Your task to perform on an android device: turn off javascript in the chrome app Image 0: 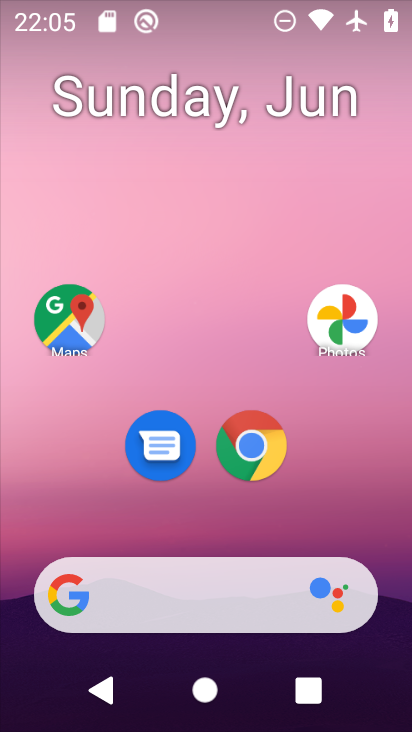
Step 0: click (247, 455)
Your task to perform on an android device: turn off javascript in the chrome app Image 1: 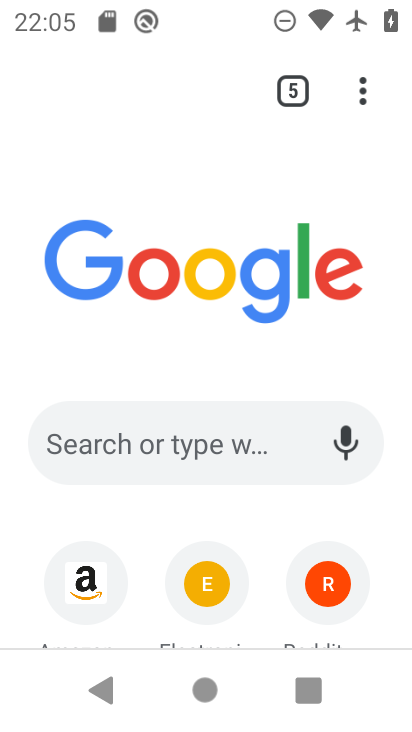
Step 1: click (360, 95)
Your task to perform on an android device: turn off javascript in the chrome app Image 2: 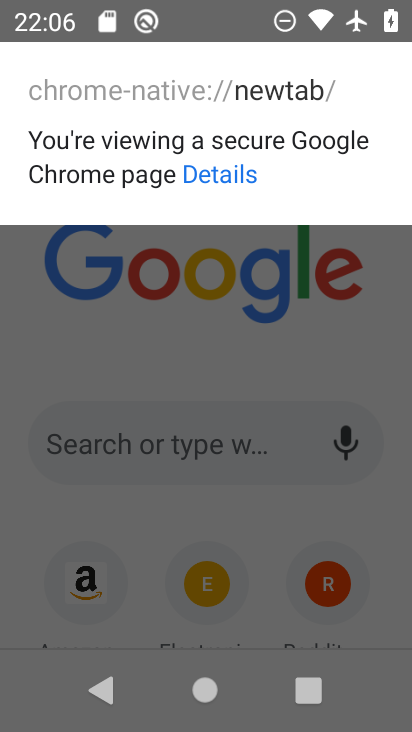
Step 2: click (357, 342)
Your task to perform on an android device: turn off javascript in the chrome app Image 3: 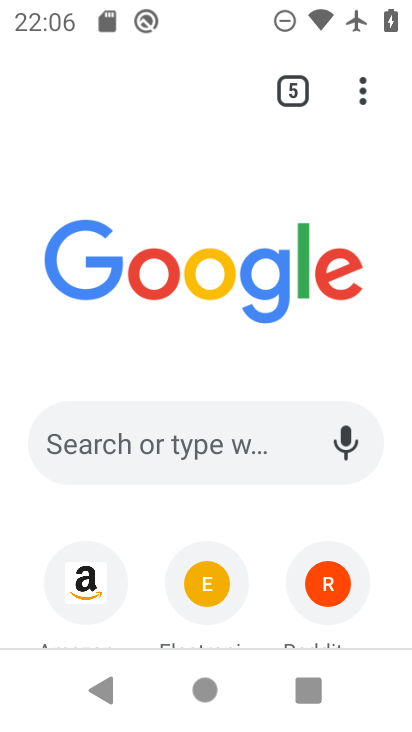
Step 3: drag from (360, 89) to (142, 481)
Your task to perform on an android device: turn off javascript in the chrome app Image 4: 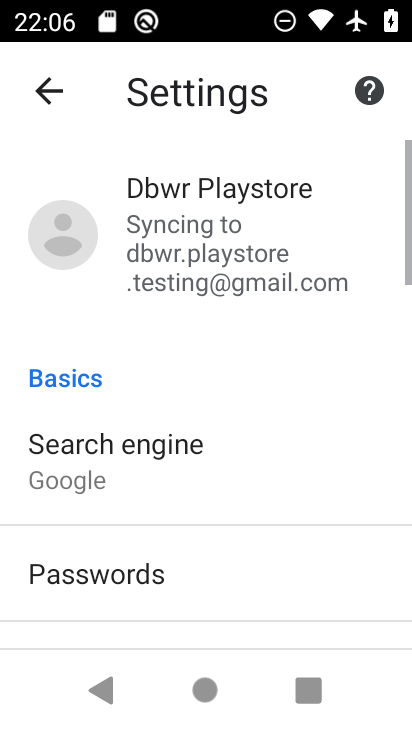
Step 4: drag from (313, 583) to (278, 208)
Your task to perform on an android device: turn off javascript in the chrome app Image 5: 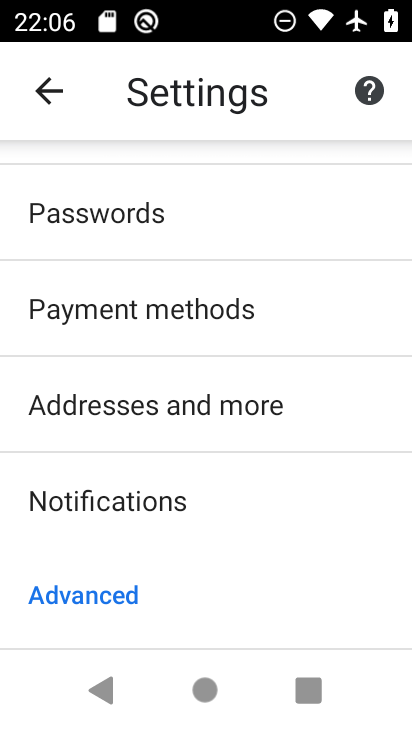
Step 5: drag from (280, 555) to (284, 176)
Your task to perform on an android device: turn off javascript in the chrome app Image 6: 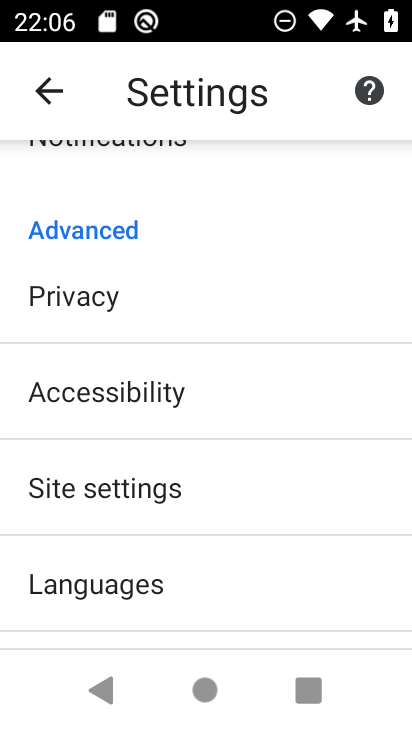
Step 6: click (124, 491)
Your task to perform on an android device: turn off javascript in the chrome app Image 7: 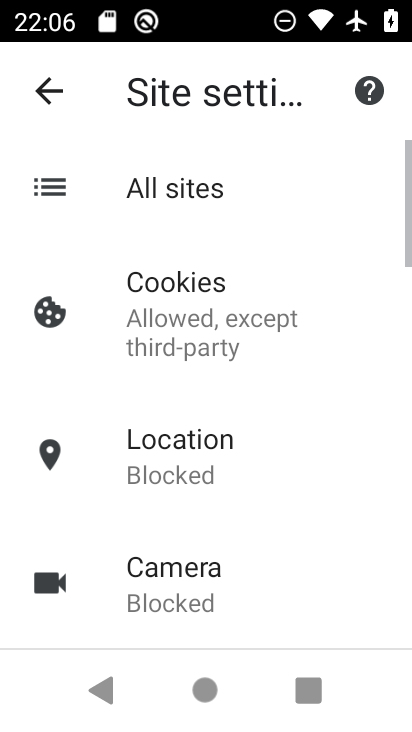
Step 7: drag from (280, 526) to (288, 212)
Your task to perform on an android device: turn off javascript in the chrome app Image 8: 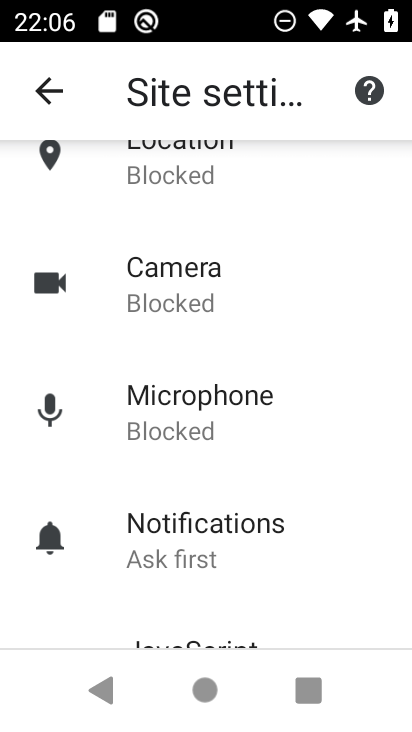
Step 8: drag from (326, 590) to (339, 352)
Your task to perform on an android device: turn off javascript in the chrome app Image 9: 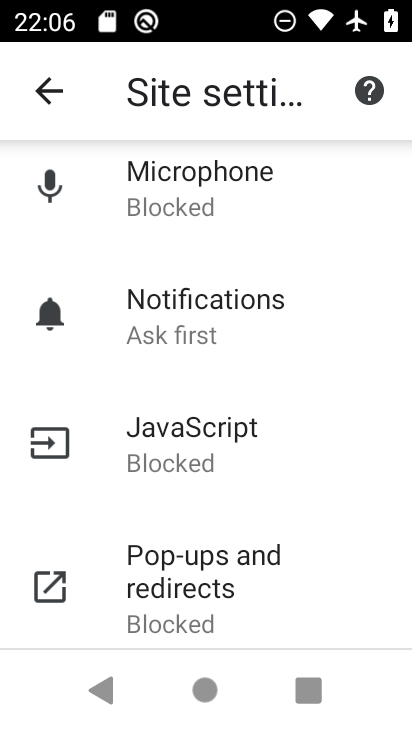
Step 9: click (196, 440)
Your task to perform on an android device: turn off javascript in the chrome app Image 10: 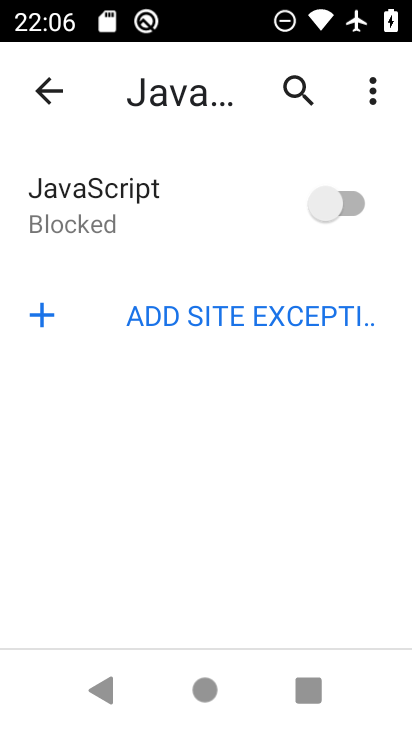
Step 10: task complete